Your task to perform on an android device: turn off translation in the chrome app Image 0: 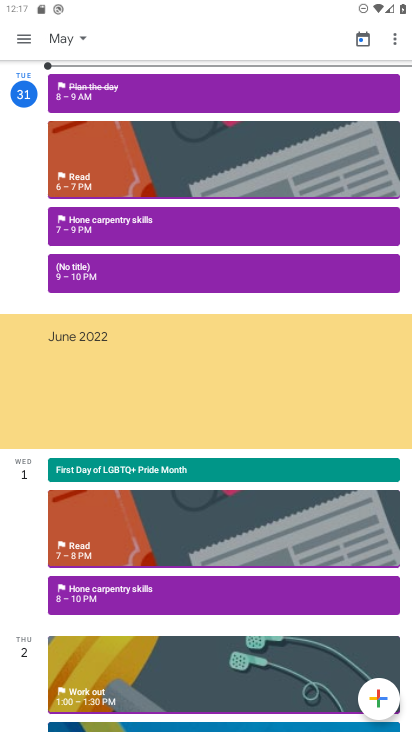
Step 0: drag from (198, 639) to (266, 220)
Your task to perform on an android device: turn off translation in the chrome app Image 1: 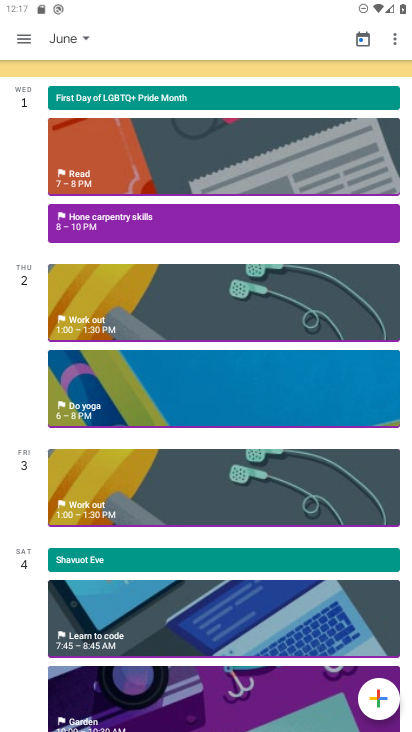
Step 1: drag from (290, 253) to (266, 726)
Your task to perform on an android device: turn off translation in the chrome app Image 2: 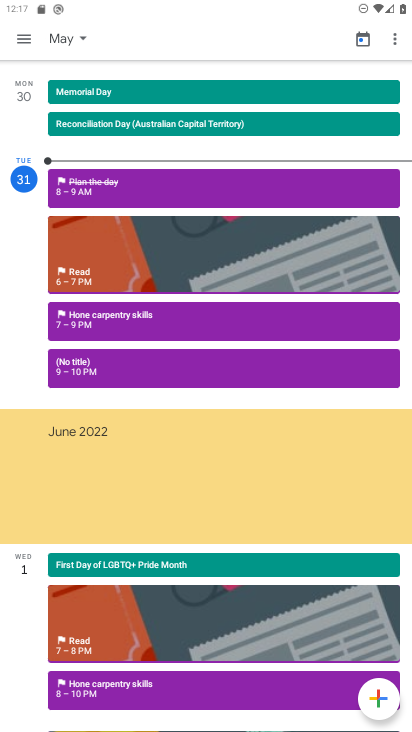
Step 2: press home button
Your task to perform on an android device: turn off translation in the chrome app Image 3: 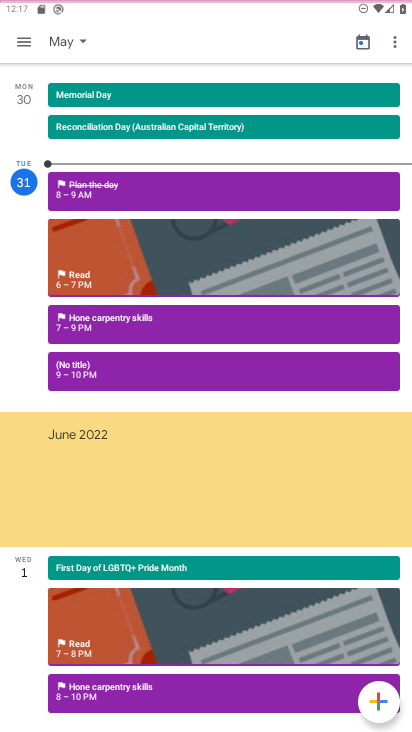
Step 3: drag from (200, 616) to (349, 110)
Your task to perform on an android device: turn off translation in the chrome app Image 4: 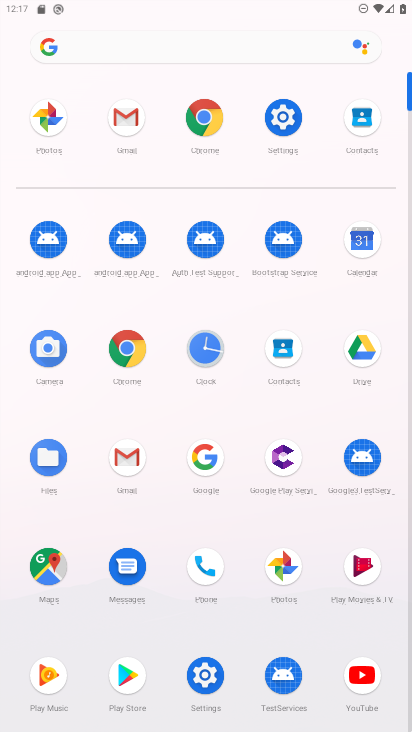
Step 4: click (202, 116)
Your task to perform on an android device: turn off translation in the chrome app Image 5: 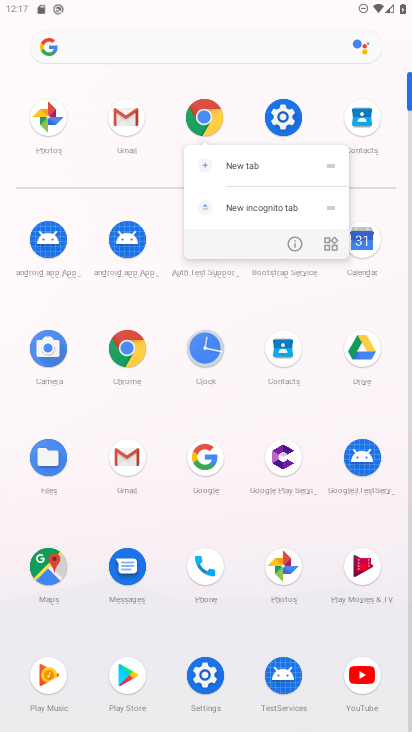
Step 5: click (300, 244)
Your task to perform on an android device: turn off translation in the chrome app Image 6: 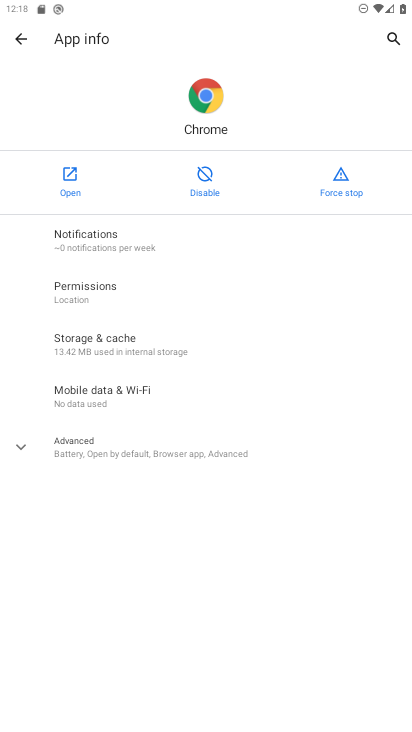
Step 6: click (72, 180)
Your task to perform on an android device: turn off translation in the chrome app Image 7: 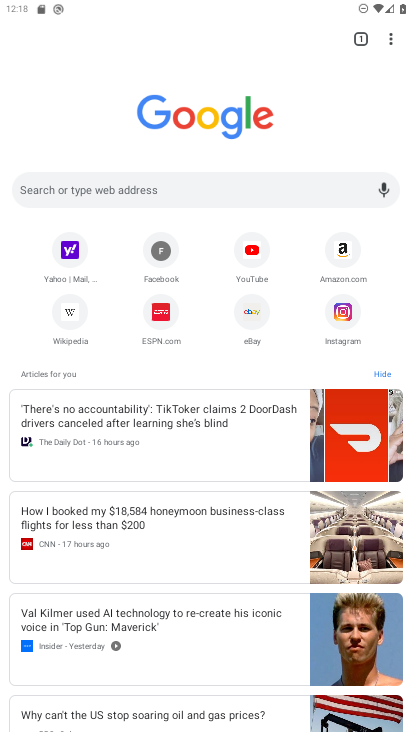
Step 7: click (390, 43)
Your task to perform on an android device: turn off translation in the chrome app Image 8: 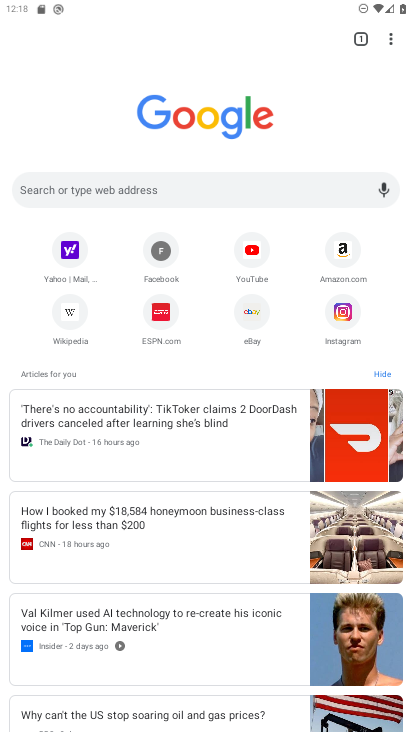
Step 8: drag from (387, 26) to (251, 366)
Your task to perform on an android device: turn off translation in the chrome app Image 9: 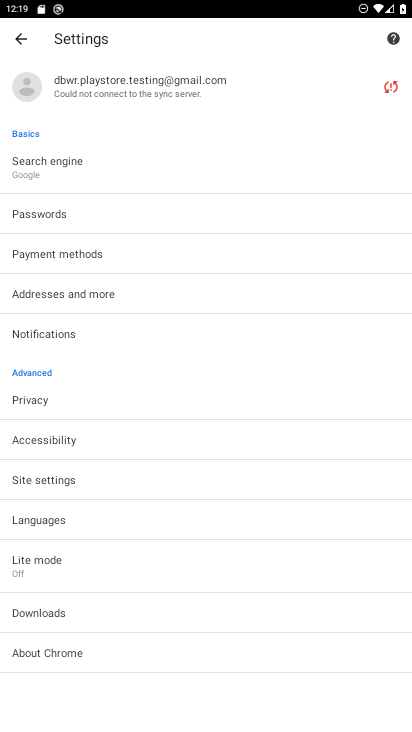
Step 9: click (62, 520)
Your task to perform on an android device: turn off translation in the chrome app Image 10: 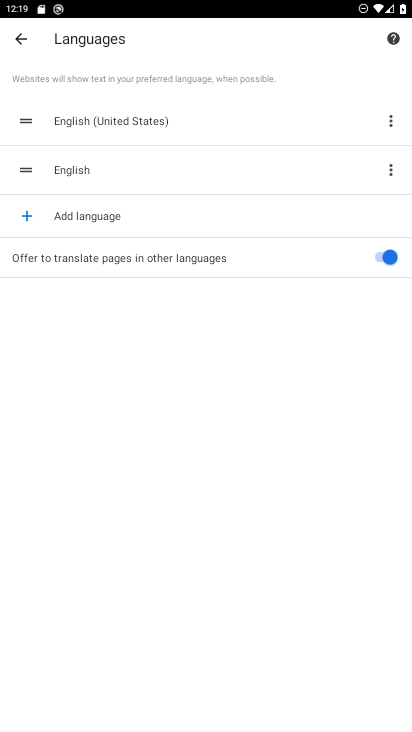
Step 10: click (385, 254)
Your task to perform on an android device: turn off translation in the chrome app Image 11: 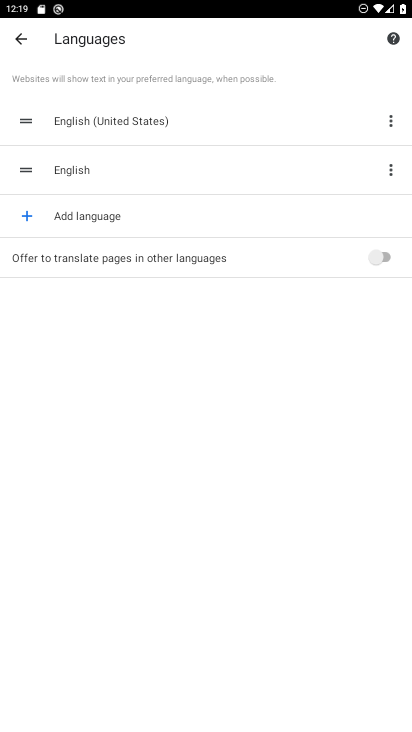
Step 11: task complete